Your task to perform on an android device: turn off sleep mode Image 0: 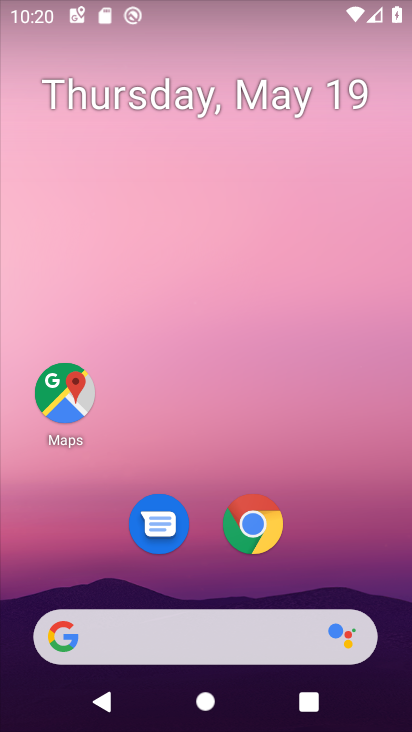
Step 0: drag from (317, 441) to (323, 28)
Your task to perform on an android device: turn off sleep mode Image 1: 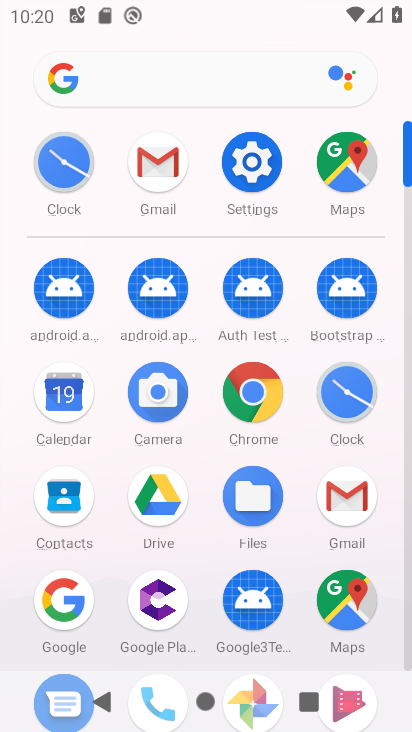
Step 1: click (273, 148)
Your task to perform on an android device: turn off sleep mode Image 2: 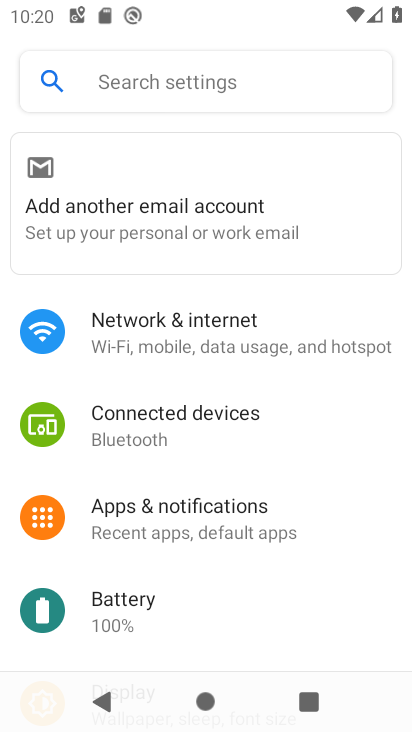
Step 2: drag from (216, 480) to (270, 56)
Your task to perform on an android device: turn off sleep mode Image 3: 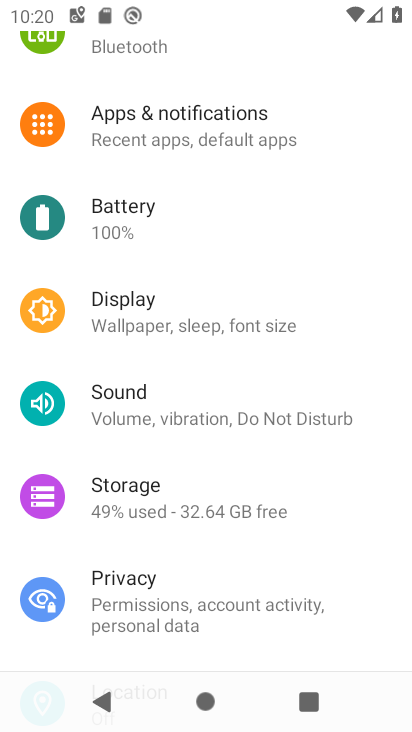
Step 3: click (240, 314)
Your task to perform on an android device: turn off sleep mode Image 4: 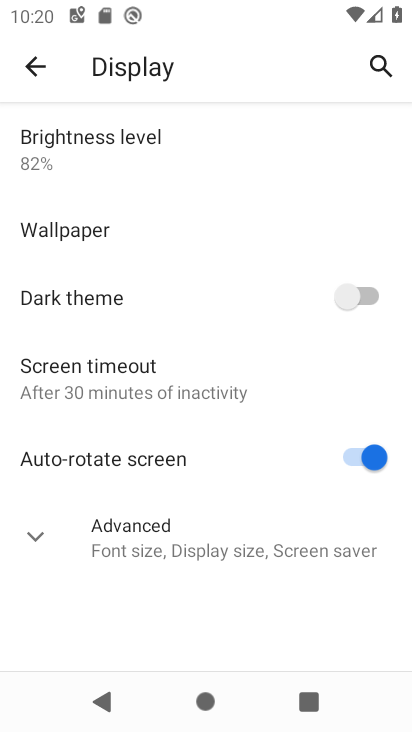
Step 4: click (30, 534)
Your task to perform on an android device: turn off sleep mode Image 5: 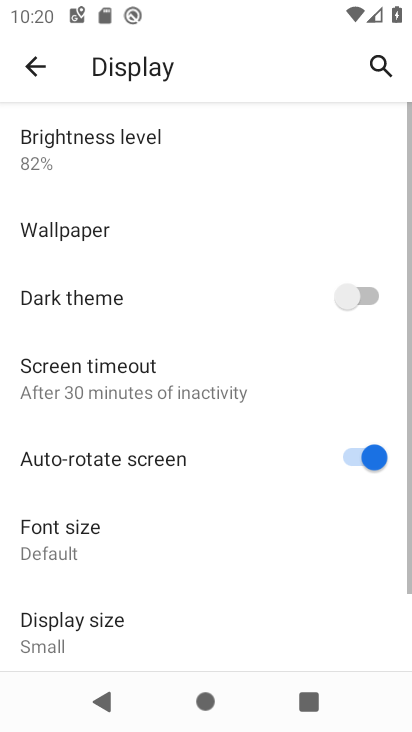
Step 5: task complete